Your task to perform on an android device: allow notifications from all sites in the chrome app Image 0: 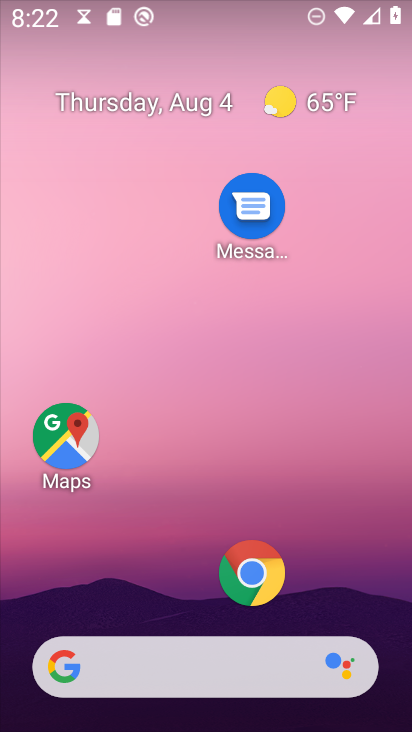
Step 0: press home button
Your task to perform on an android device: allow notifications from all sites in the chrome app Image 1: 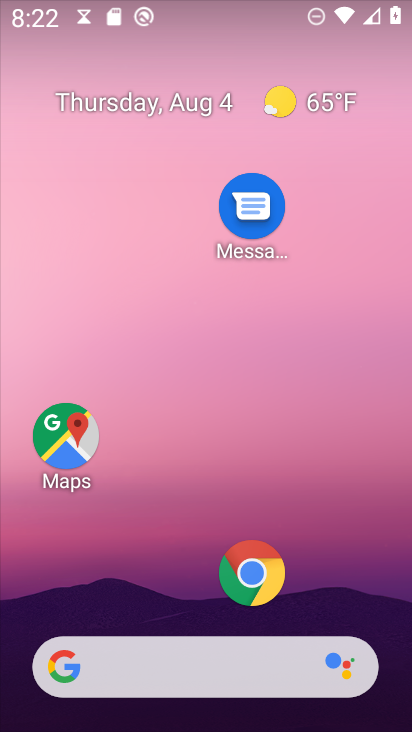
Step 1: drag from (194, 410) to (208, 277)
Your task to perform on an android device: allow notifications from all sites in the chrome app Image 2: 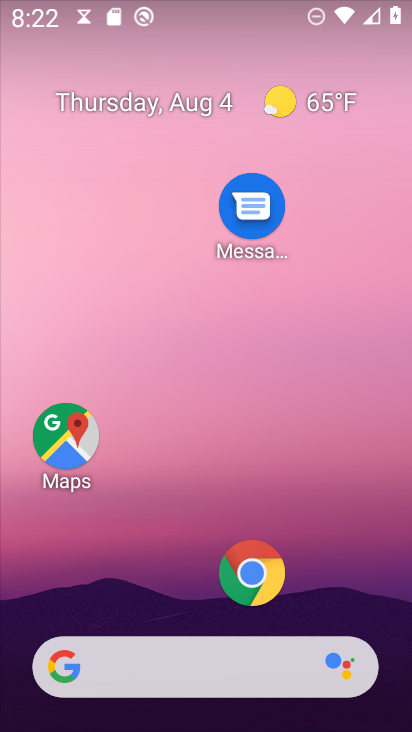
Step 2: drag from (174, 577) to (161, 251)
Your task to perform on an android device: allow notifications from all sites in the chrome app Image 3: 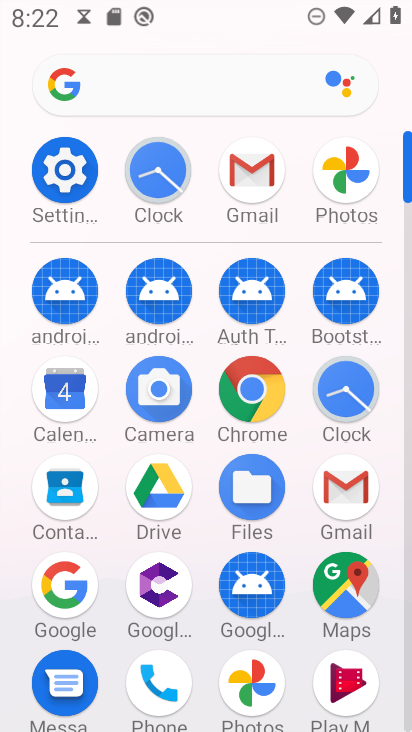
Step 3: click (248, 389)
Your task to perform on an android device: allow notifications from all sites in the chrome app Image 4: 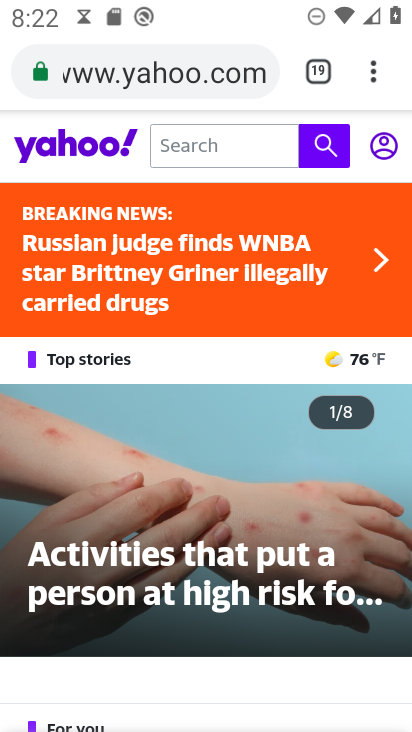
Step 4: drag from (374, 73) to (151, 576)
Your task to perform on an android device: allow notifications from all sites in the chrome app Image 5: 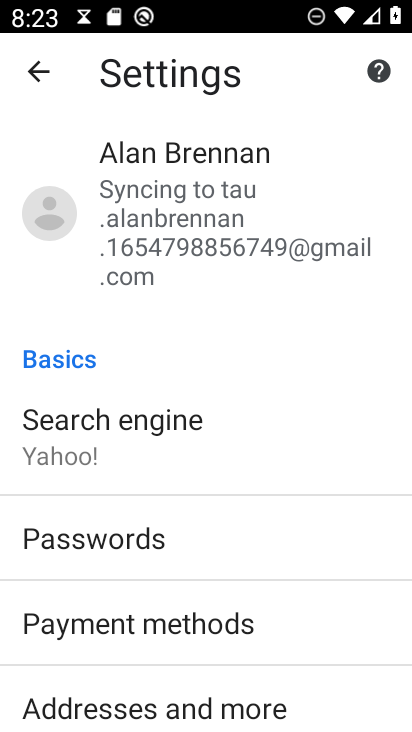
Step 5: drag from (330, 700) to (267, 163)
Your task to perform on an android device: allow notifications from all sites in the chrome app Image 6: 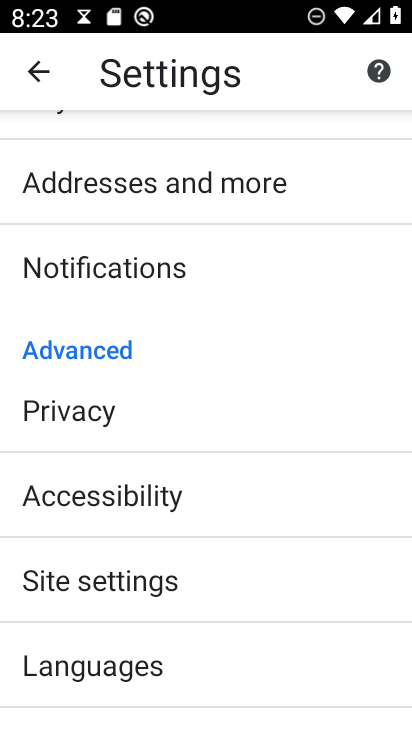
Step 6: click (88, 579)
Your task to perform on an android device: allow notifications from all sites in the chrome app Image 7: 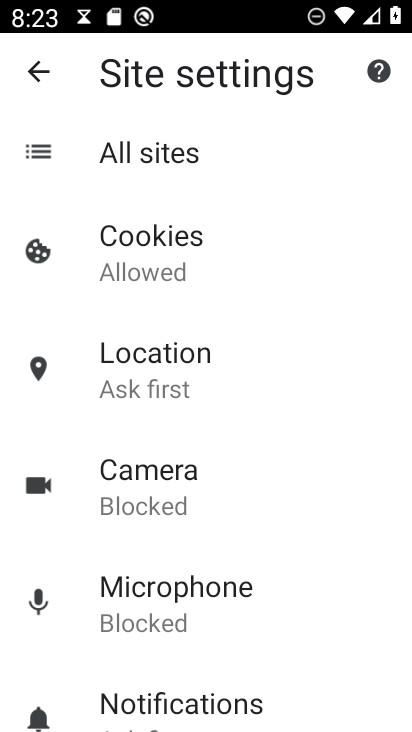
Step 7: click (186, 714)
Your task to perform on an android device: allow notifications from all sites in the chrome app Image 8: 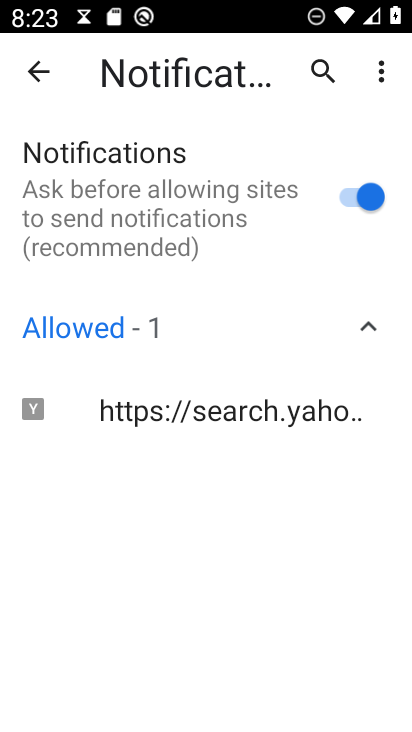
Step 8: task complete